Your task to perform on an android device: Go to Amazon Image 0: 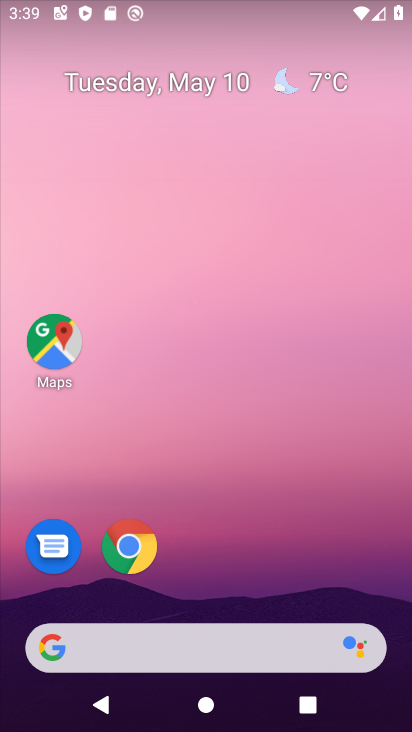
Step 0: click (123, 545)
Your task to perform on an android device: Go to Amazon Image 1: 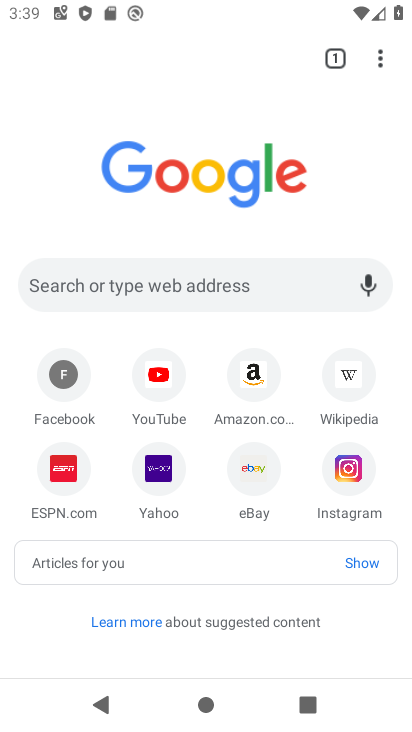
Step 1: click (264, 390)
Your task to perform on an android device: Go to Amazon Image 2: 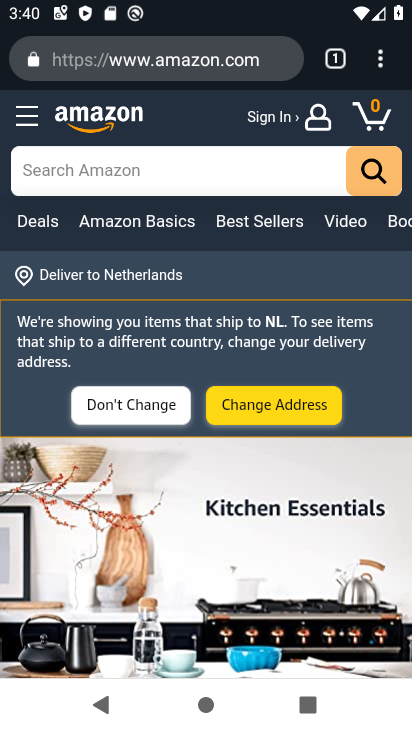
Step 2: task complete